Your task to perform on an android device: turn off sleep mode Image 0: 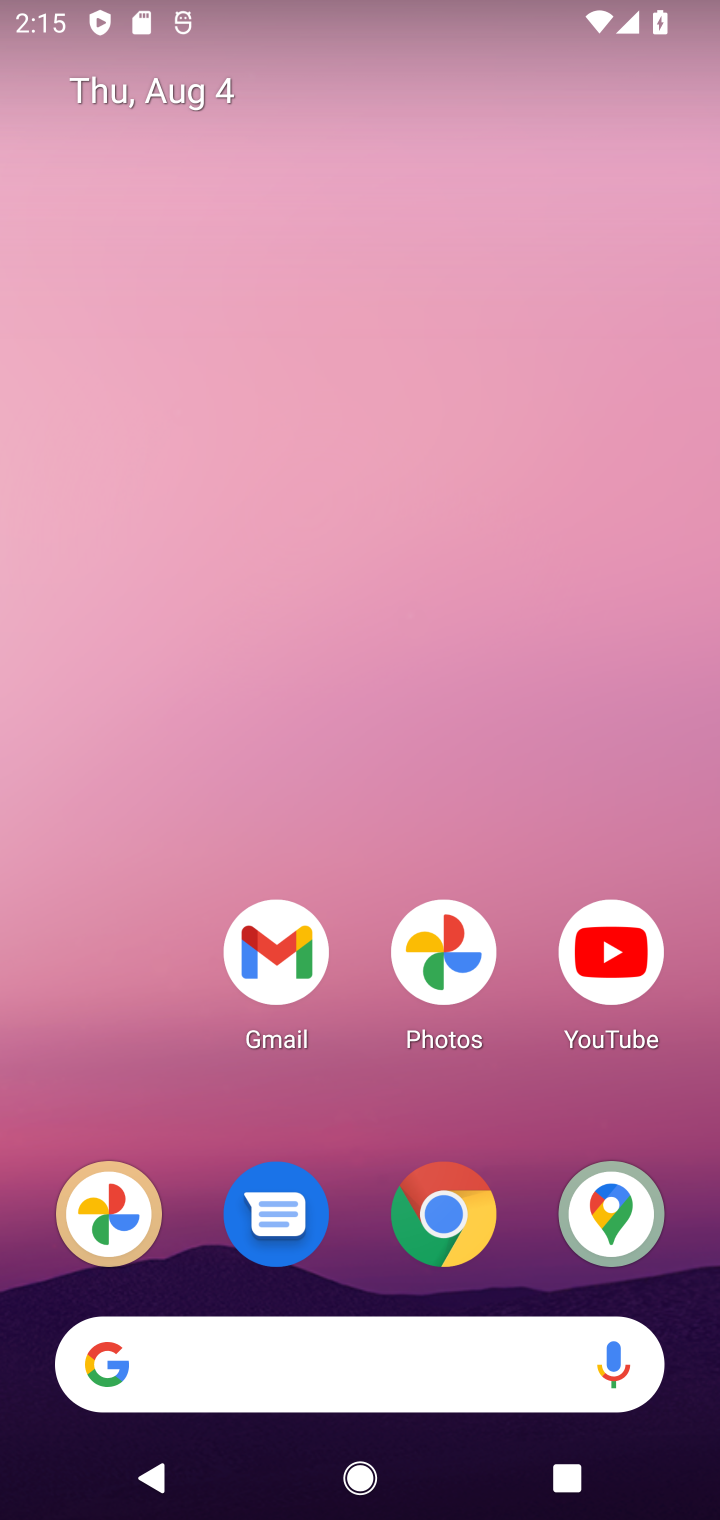
Step 0: drag from (93, 887) to (88, 241)
Your task to perform on an android device: turn off sleep mode Image 1: 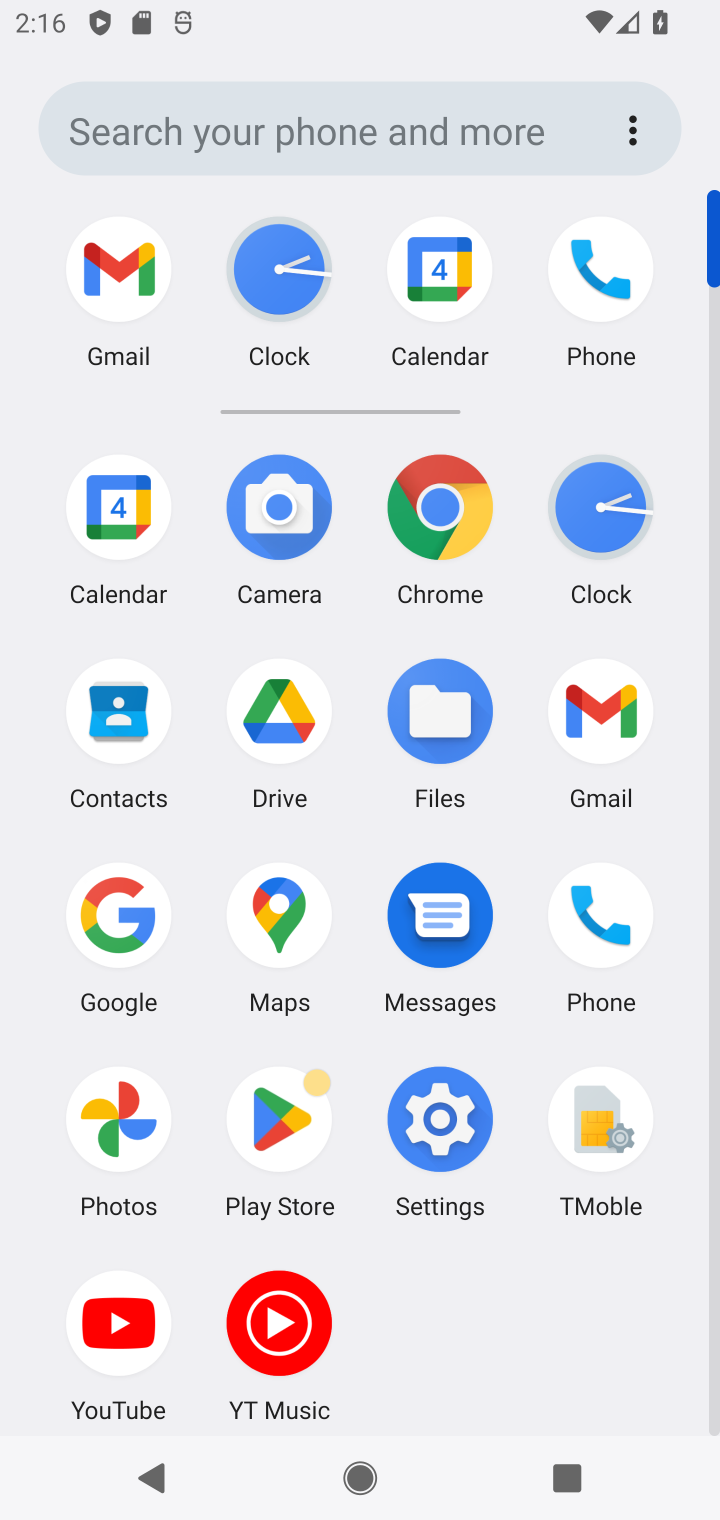
Step 1: click (423, 1161)
Your task to perform on an android device: turn off sleep mode Image 2: 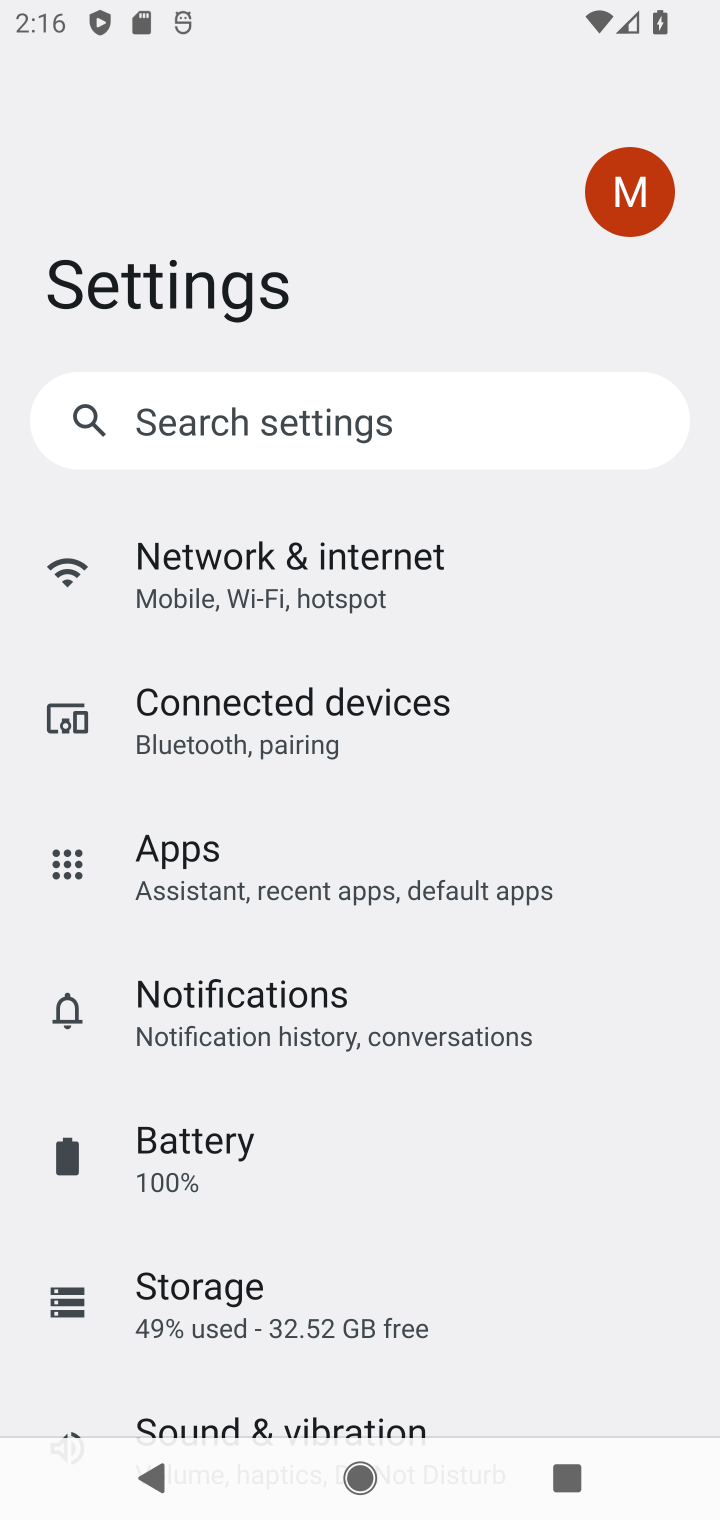
Step 2: task complete